Your task to perform on an android device: Open notification settings Image 0: 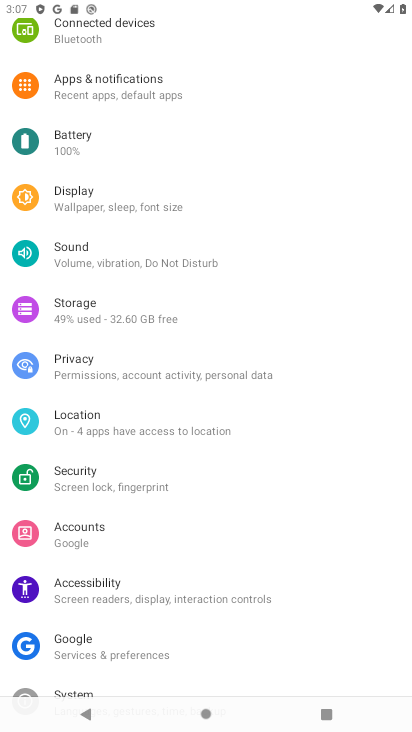
Step 0: click (159, 89)
Your task to perform on an android device: Open notification settings Image 1: 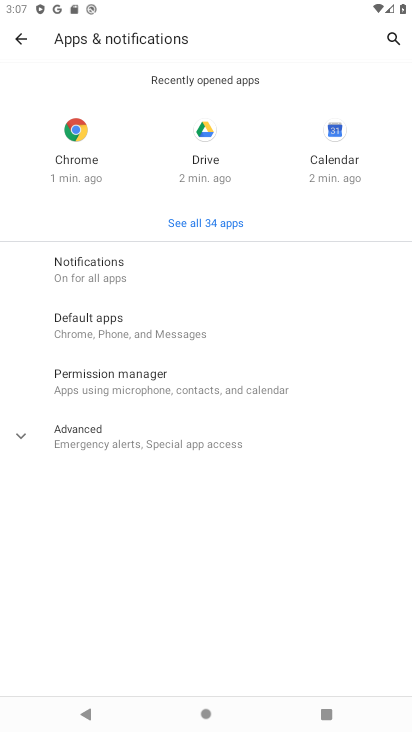
Step 1: click (105, 263)
Your task to perform on an android device: Open notification settings Image 2: 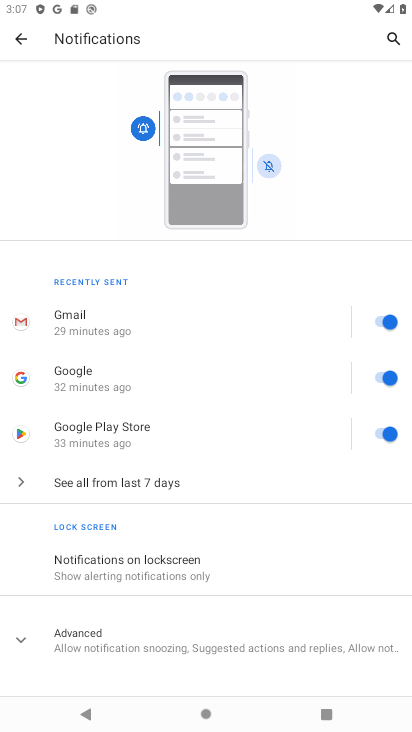
Step 2: task complete